Your task to perform on an android device: all mails in gmail Image 0: 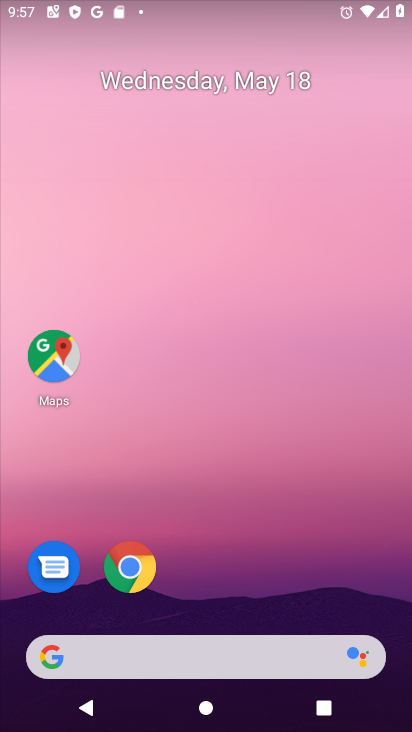
Step 0: drag from (190, 649) to (207, 83)
Your task to perform on an android device: all mails in gmail Image 1: 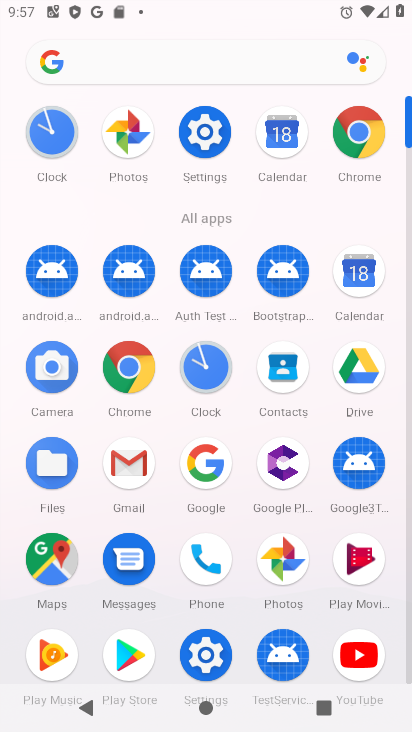
Step 1: click (134, 478)
Your task to perform on an android device: all mails in gmail Image 2: 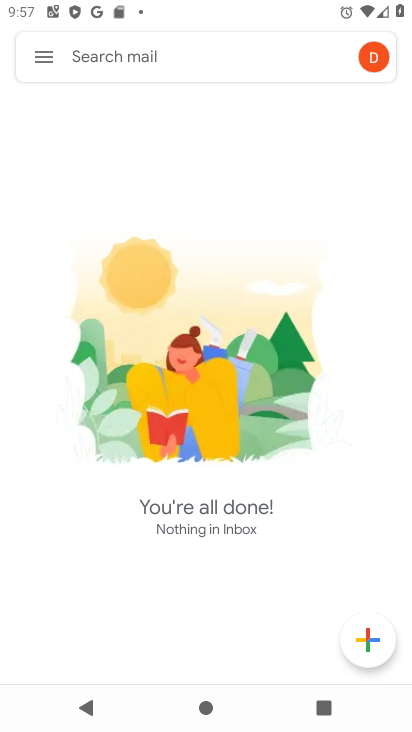
Step 2: click (44, 58)
Your task to perform on an android device: all mails in gmail Image 3: 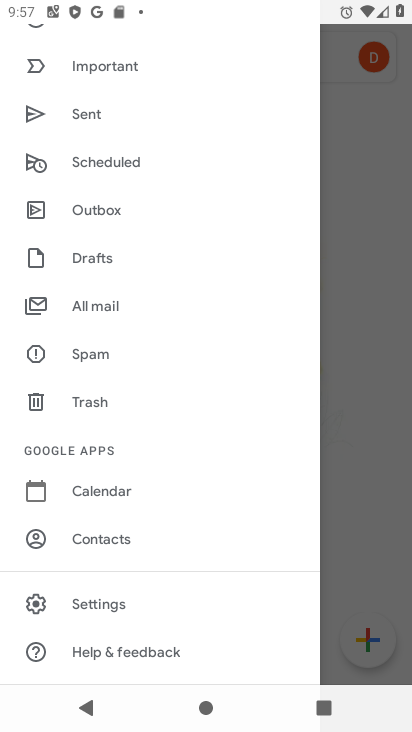
Step 3: click (83, 311)
Your task to perform on an android device: all mails in gmail Image 4: 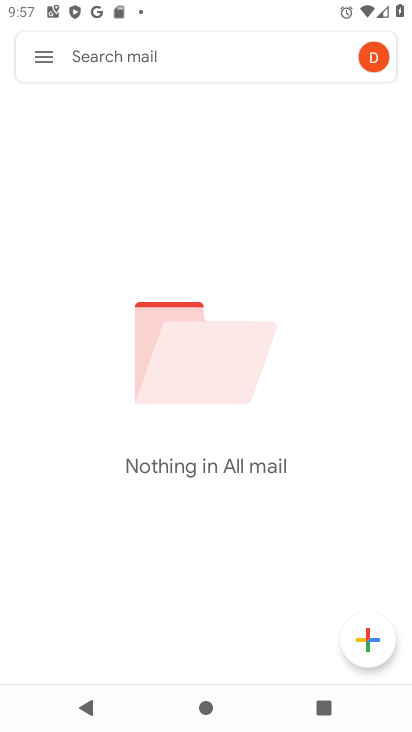
Step 4: task complete